Your task to perform on an android device: What is the news today? Image 0: 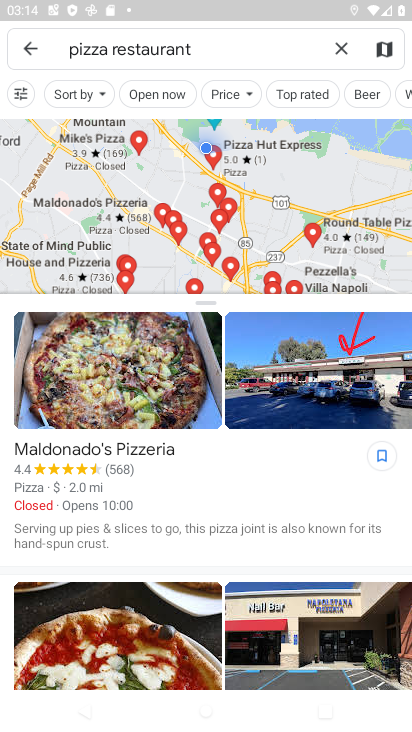
Step 0: press home button
Your task to perform on an android device: What is the news today? Image 1: 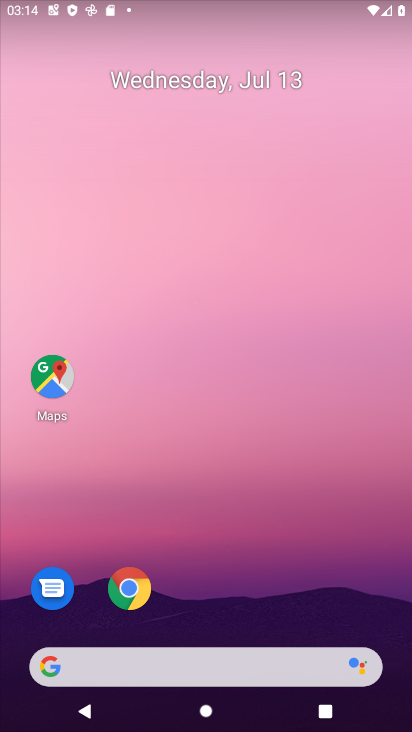
Step 1: task complete